Your task to perform on an android device: toggle improve location accuracy Image 0: 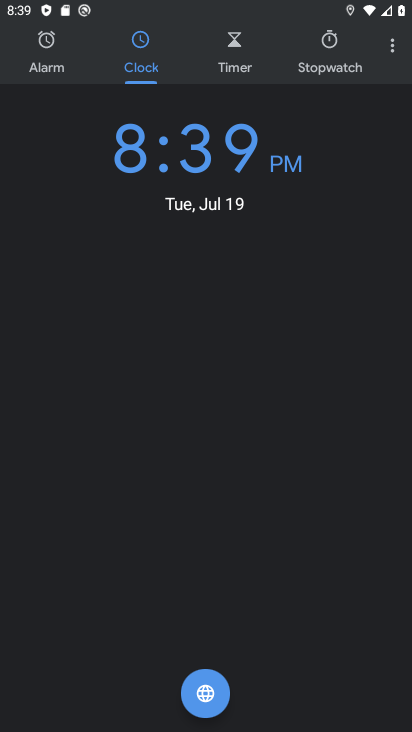
Step 0: press home button
Your task to perform on an android device: toggle improve location accuracy Image 1: 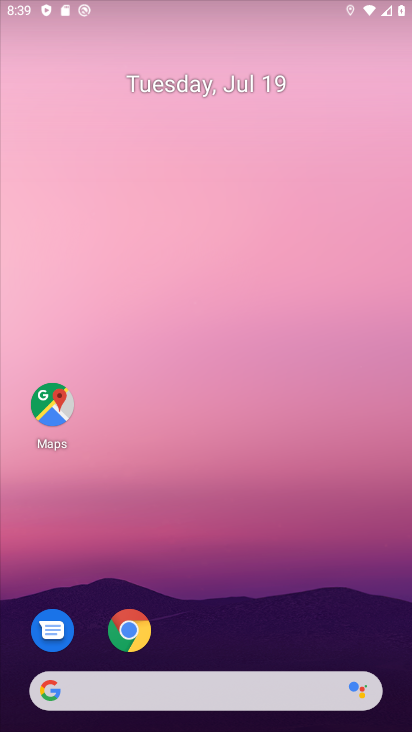
Step 1: drag from (222, 624) to (264, 139)
Your task to perform on an android device: toggle improve location accuracy Image 2: 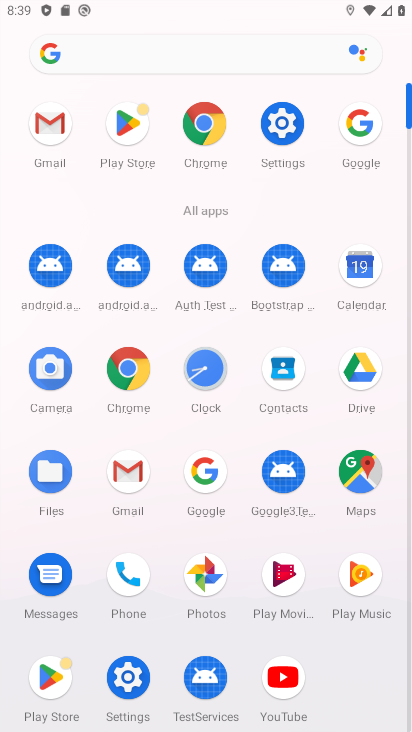
Step 2: click (281, 119)
Your task to perform on an android device: toggle improve location accuracy Image 3: 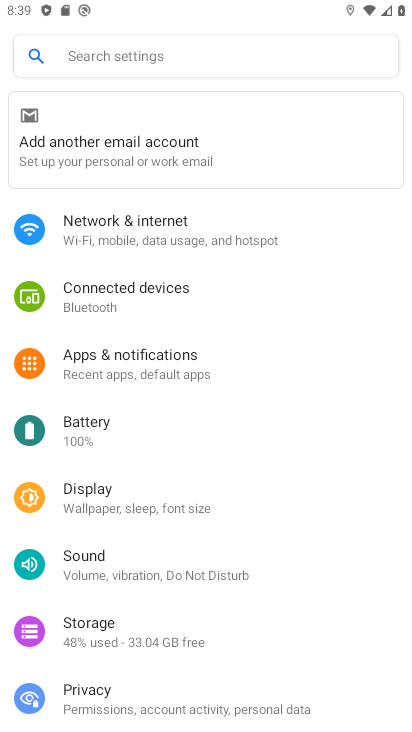
Step 3: drag from (125, 662) to (182, 289)
Your task to perform on an android device: toggle improve location accuracy Image 4: 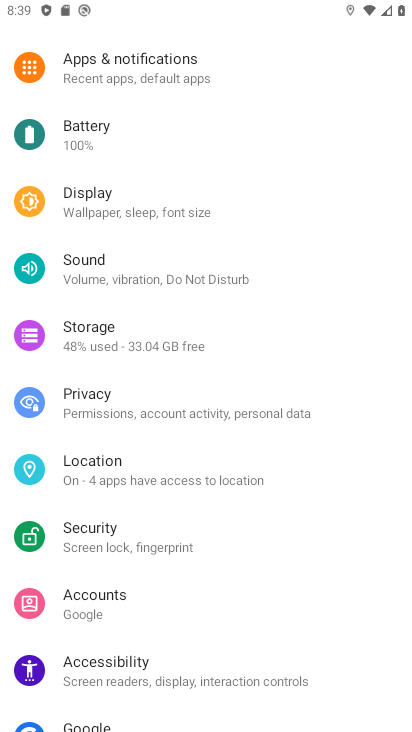
Step 4: click (105, 466)
Your task to perform on an android device: toggle improve location accuracy Image 5: 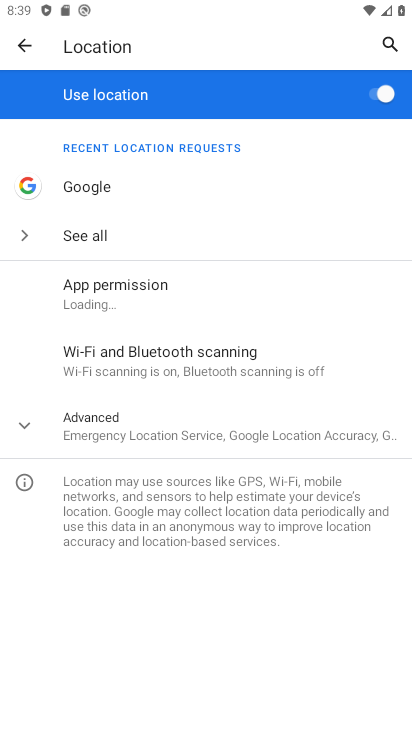
Step 5: click (90, 425)
Your task to perform on an android device: toggle improve location accuracy Image 6: 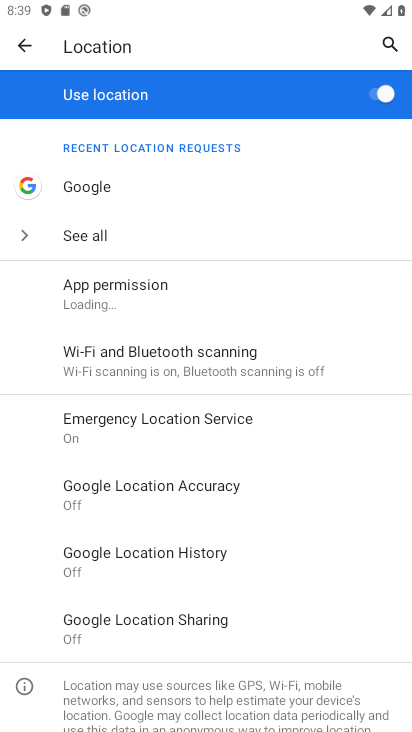
Step 6: click (169, 501)
Your task to perform on an android device: toggle improve location accuracy Image 7: 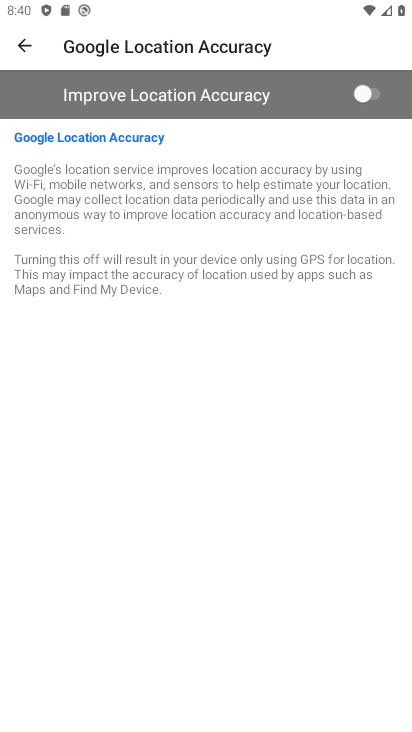
Step 7: click (366, 94)
Your task to perform on an android device: toggle improve location accuracy Image 8: 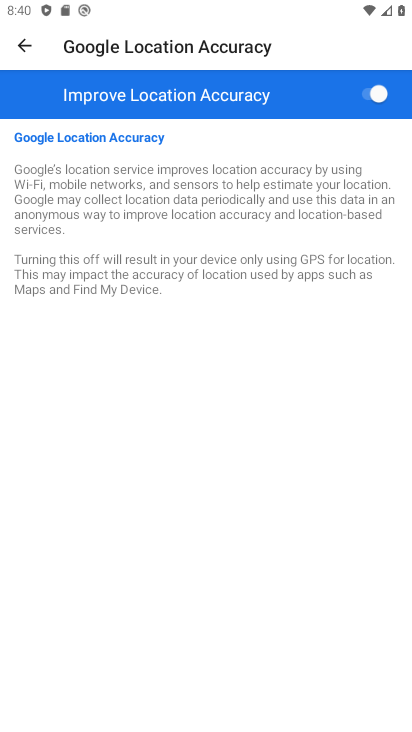
Step 8: task complete